Your task to perform on an android device: turn off smart reply in the gmail app Image 0: 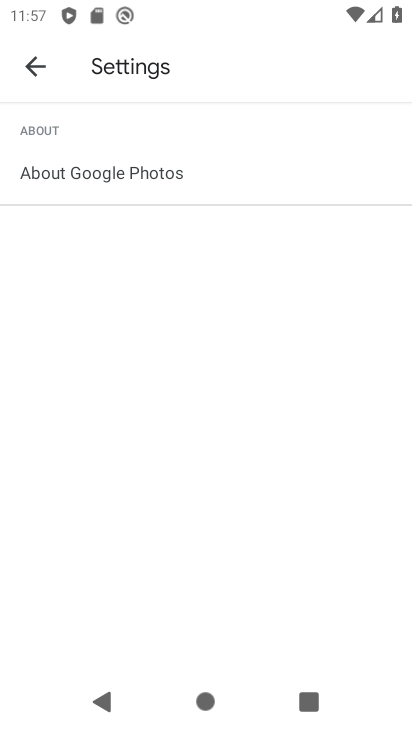
Step 0: press home button
Your task to perform on an android device: turn off smart reply in the gmail app Image 1: 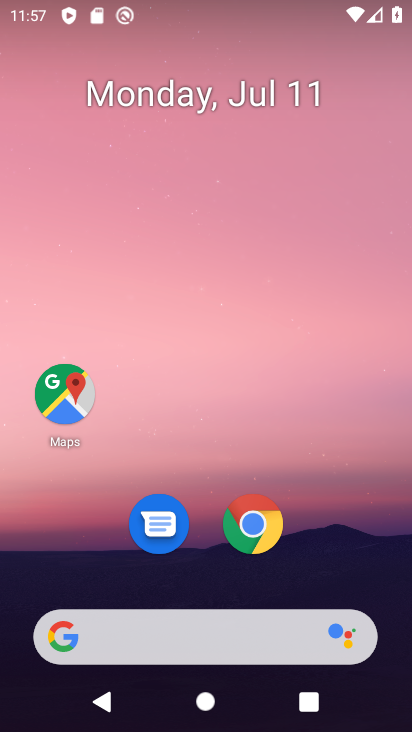
Step 1: drag from (297, 489) to (288, 1)
Your task to perform on an android device: turn off smart reply in the gmail app Image 2: 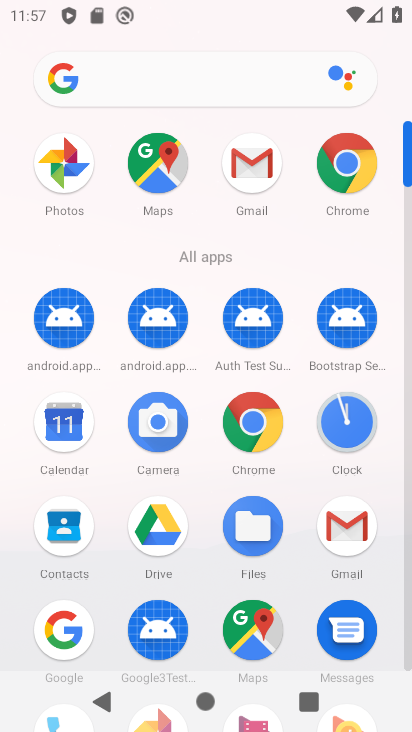
Step 2: click (251, 174)
Your task to perform on an android device: turn off smart reply in the gmail app Image 3: 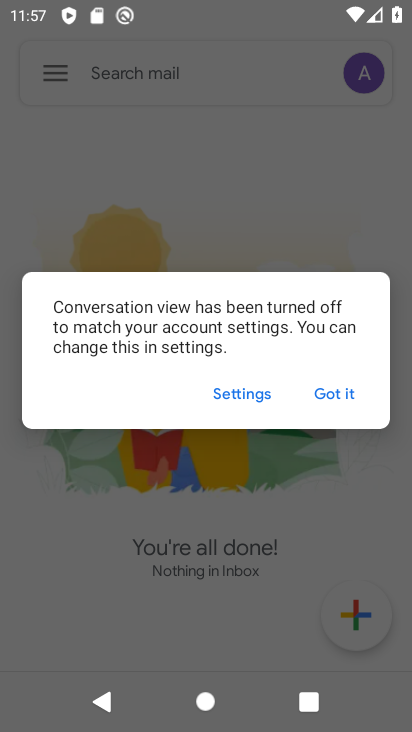
Step 3: click (336, 383)
Your task to perform on an android device: turn off smart reply in the gmail app Image 4: 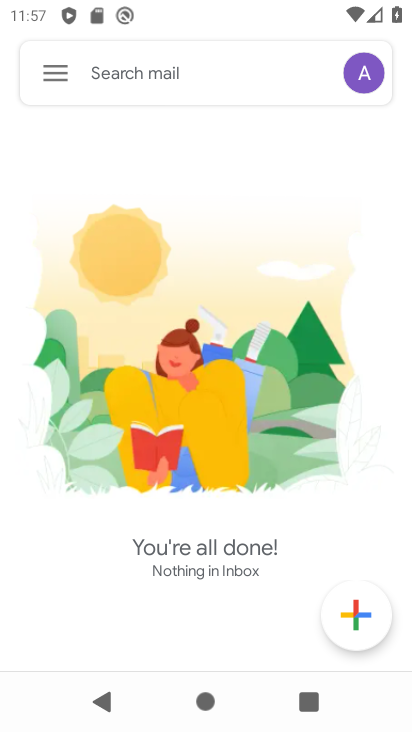
Step 4: click (62, 76)
Your task to perform on an android device: turn off smart reply in the gmail app Image 5: 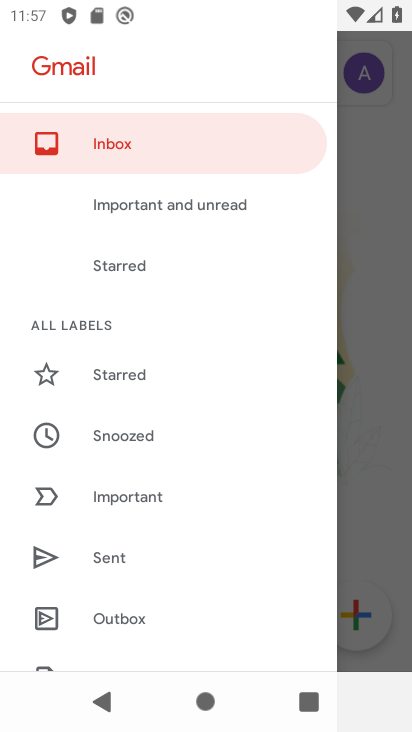
Step 5: drag from (156, 531) to (194, 8)
Your task to perform on an android device: turn off smart reply in the gmail app Image 6: 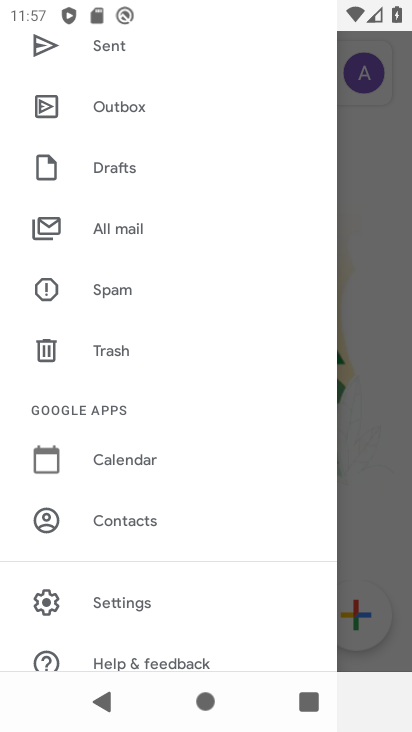
Step 6: click (144, 599)
Your task to perform on an android device: turn off smart reply in the gmail app Image 7: 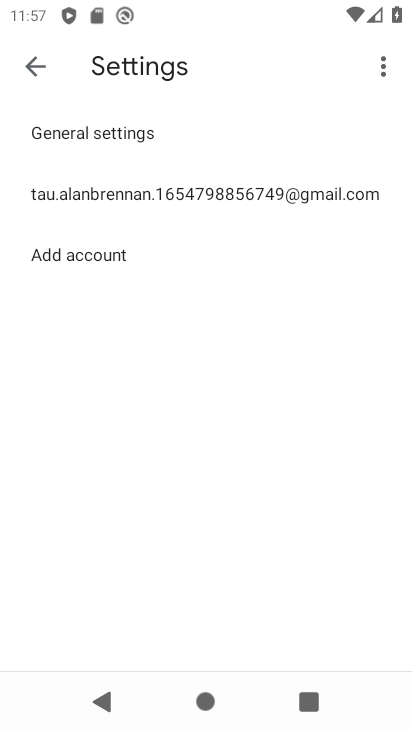
Step 7: click (243, 199)
Your task to perform on an android device: turn off smart reply in the gmail app Image 8: 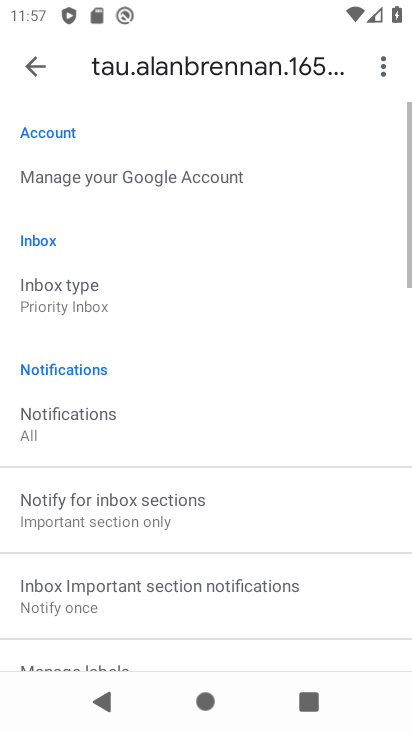
Step 8: drag from (220, 542) to (256, 89)
Your task to perform on an android device: turn off smart reply in the gmail app Image 9: 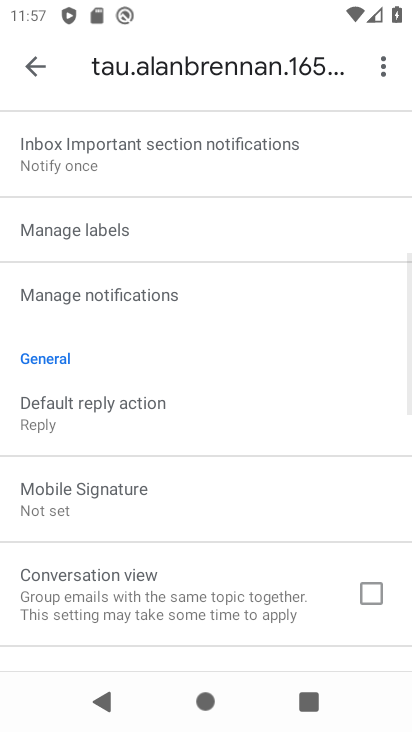
Step 9: drag from (245, 583) to (211, 119)
Your task to perform on an android device: turn off smart reply in the gmail app Image 10: 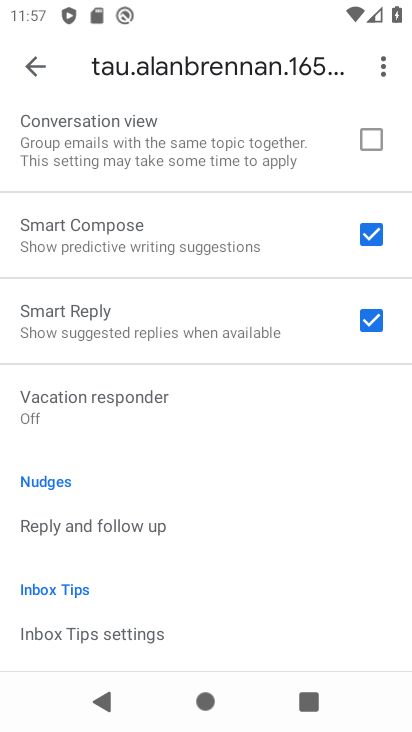
Step 10: click (366, 318)
Your task to perform on an android device: turn off smart reply in the gmail app Image 11: 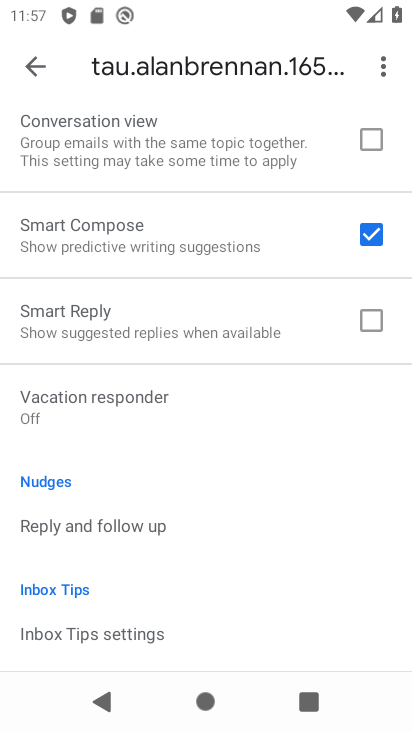
Step 11: task complete